Your task to perform on an android device: Is it going to rain tomorrow? Image 0: 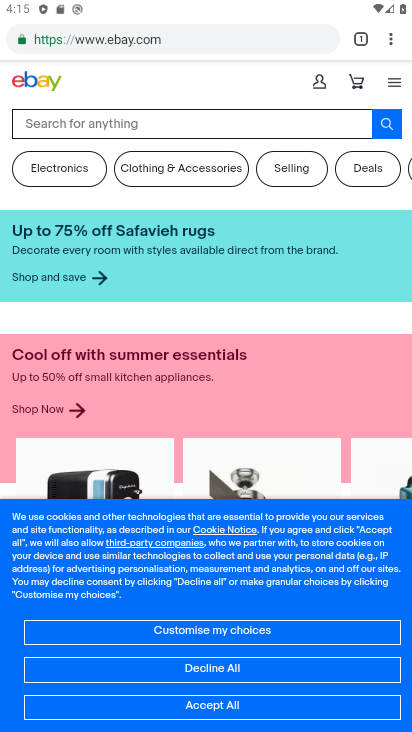
Step 0: press home button
Your task to perform on an android device: Is it going to rain tomorrow? Image 1: 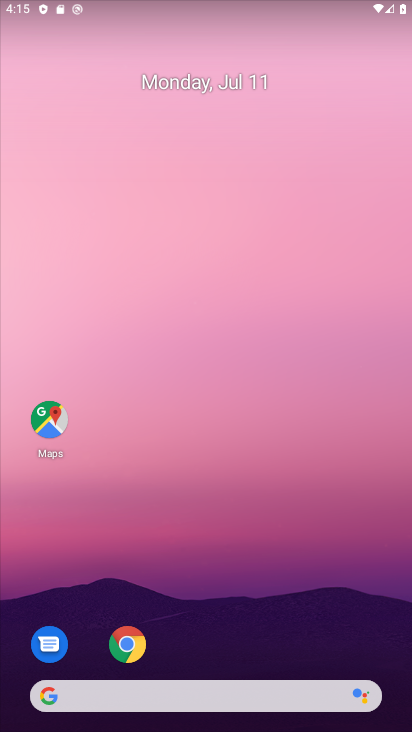
Step 1: drag from (217, 633) to (224, 218)
Your task to perform on an android device: Is it going to rain tomorrow? Image 2: 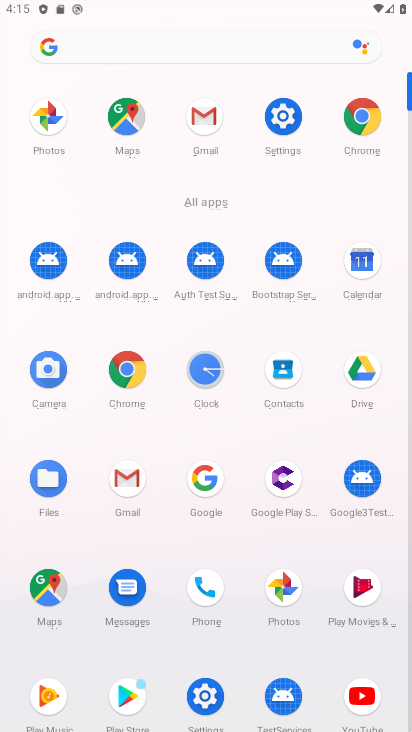
Step 2: click (205, 468)
Your task to perform on an android device: Is it going to rain tomorrow? Image 3: 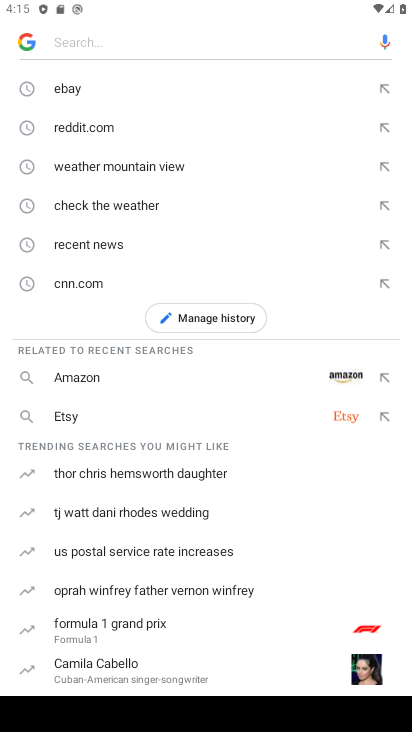
Step 3: type "weather"
Your task to perform on an android device: Is it going to rain tomorrow? Image 4: 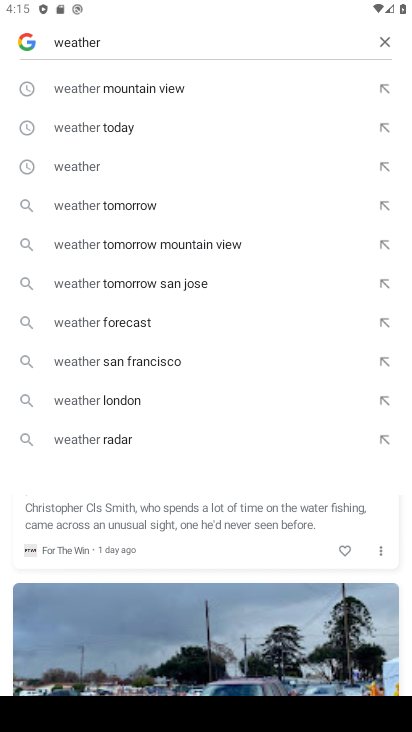
Step 4: click (137, 168)
Your task to perform on an android device: Is it going to rain tomorrow? Image 5: 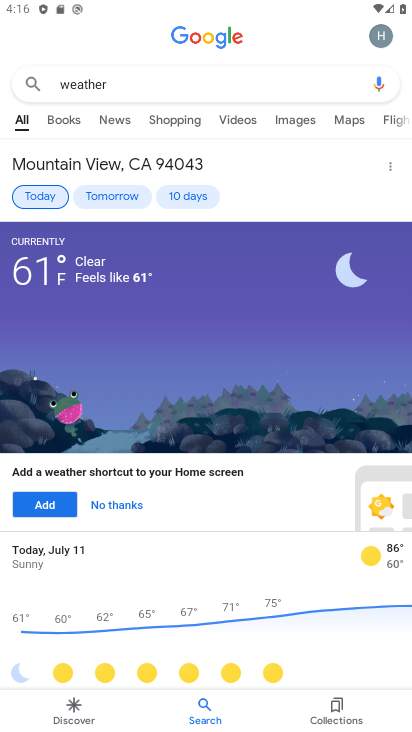
Step 5: click (128, 185)
Your task to perform on an android device: Is it going to rain tomorrow? Image 6: 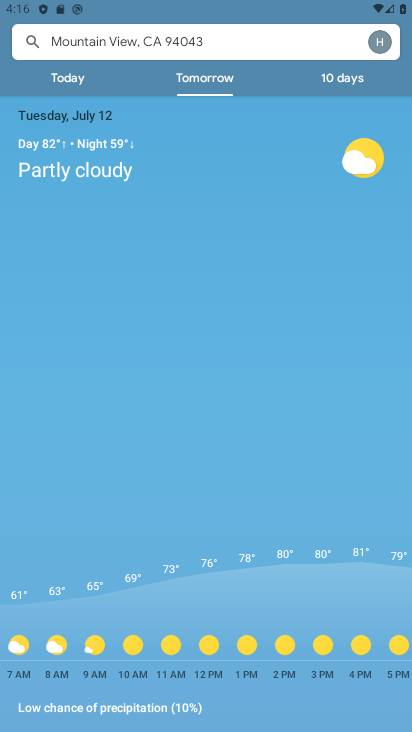
Step 6: task complete